Your task to perform on an android device: Search for the Nintendo Switch. Image 0: 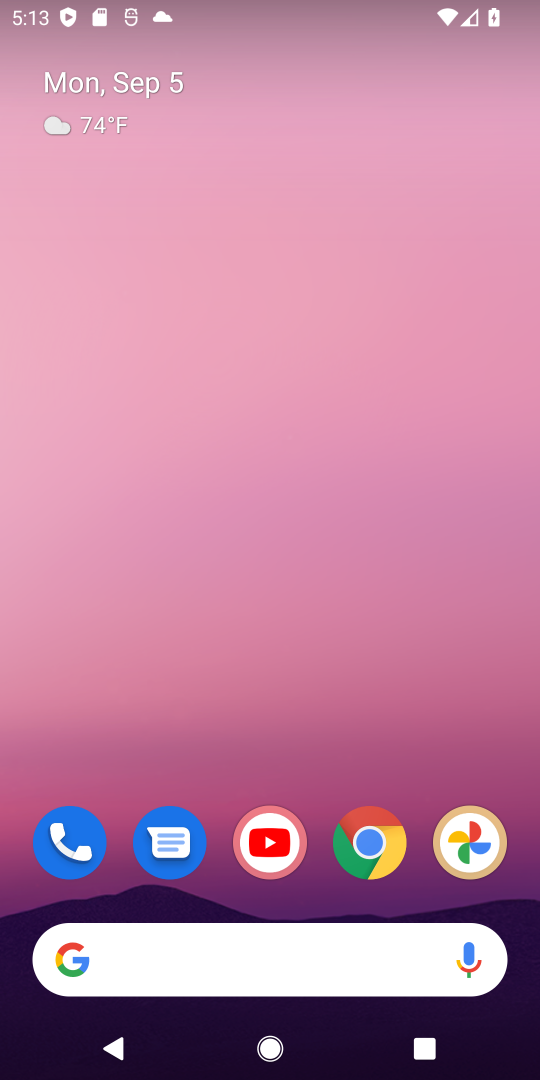
Step 0: click (374, 841)
Your task to perform on an android device: Search for the Nintendo Switch. Image 1: 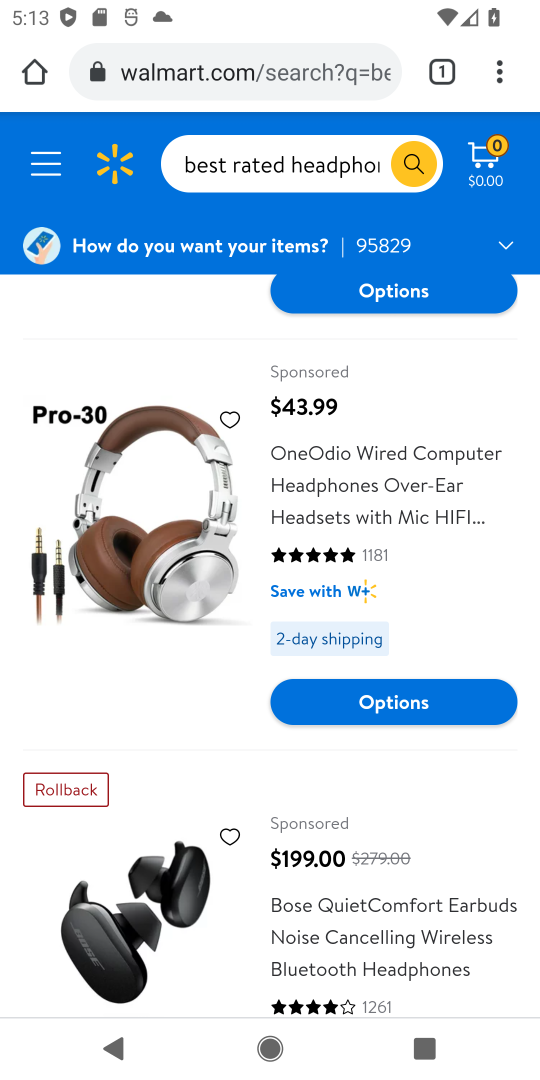
Step 1: click (327, 76)
Your task to perform on an android device: Search for the Nintendo Switch. Image 2: 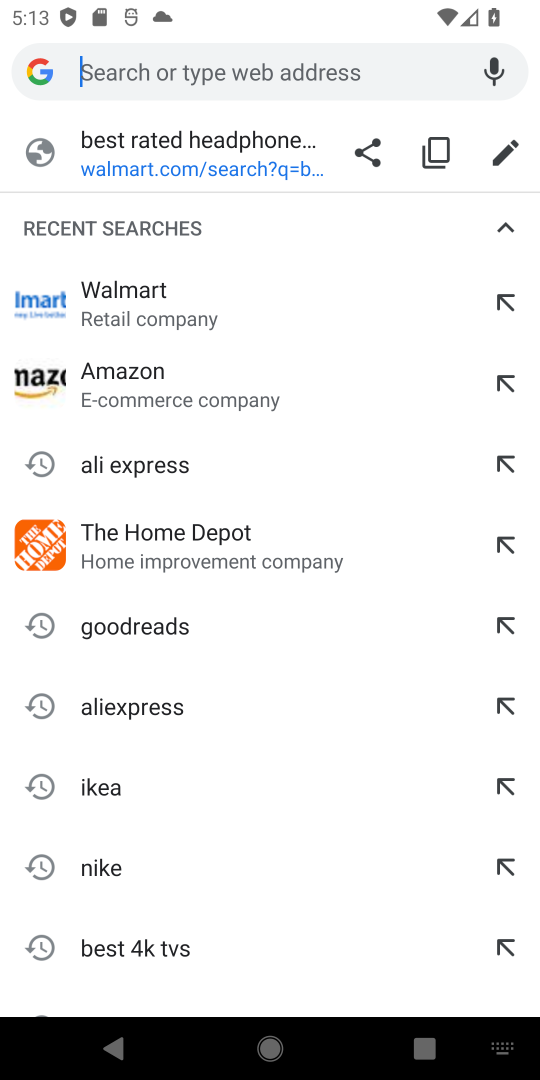
Step 2: type "Nintendo Switch"
Your task to perform on an android device: Search for the Nintendo Switch. Image 3: 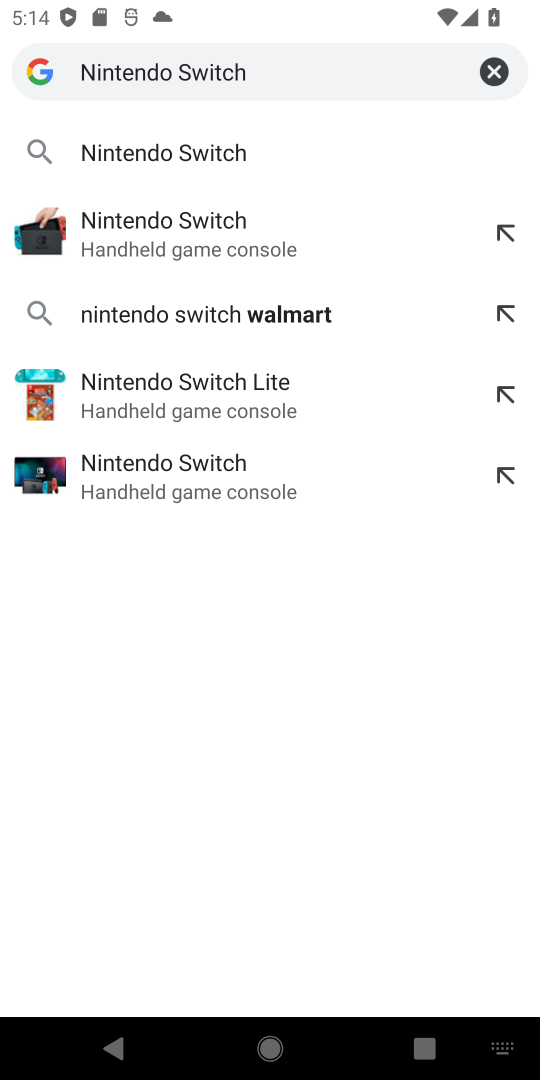
Step 3: click (203, 158)
Your task to perform on an android device: Search for the Nintendo Switch. Image 4: 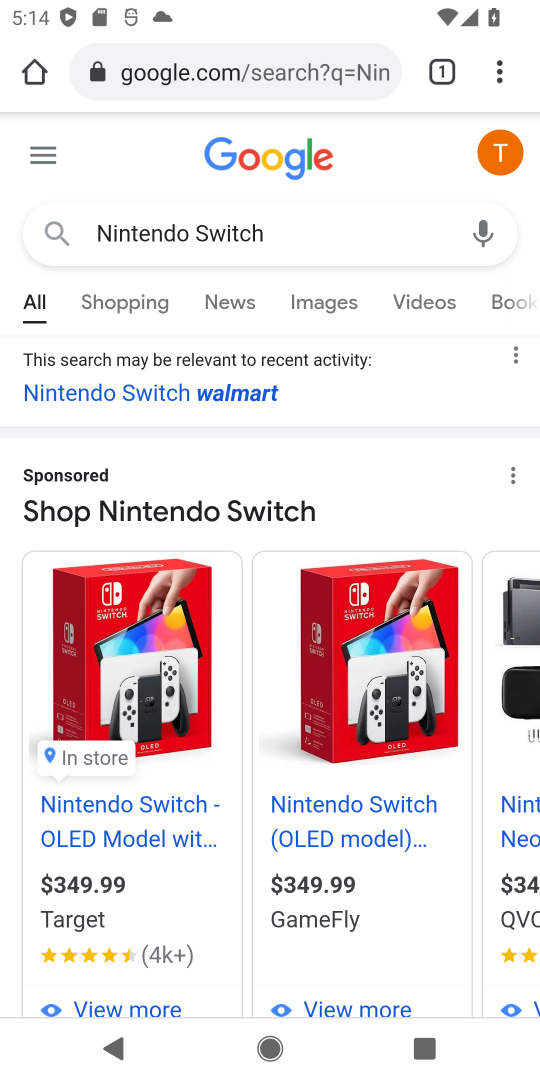
Step 4: task complete